Your task to perform on an android device: Go to ESPN.com Image 0: 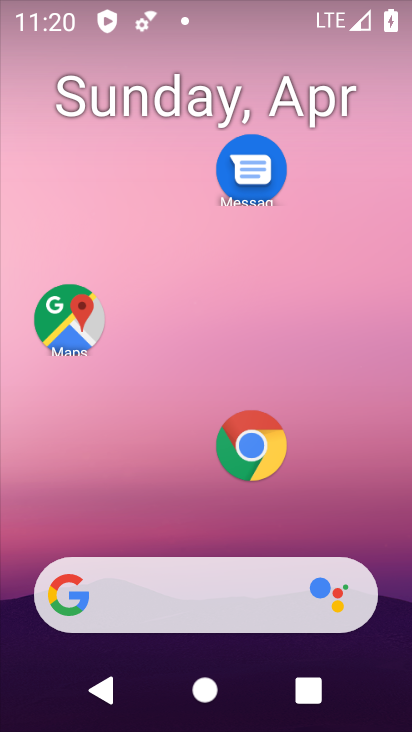
Step 0: press home button
Your task to perform on an android device: Go to ESPN.com Image 1: 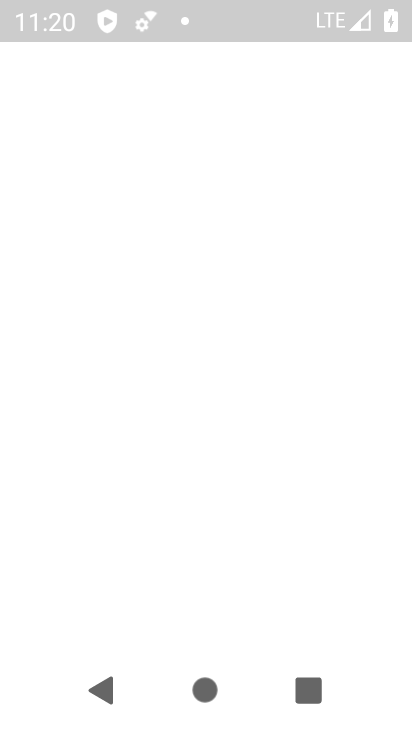
Step 1: drag from (213, 347) to (304, 94)
Your task to perform on an android device: Go to ESPN.com Image 2: 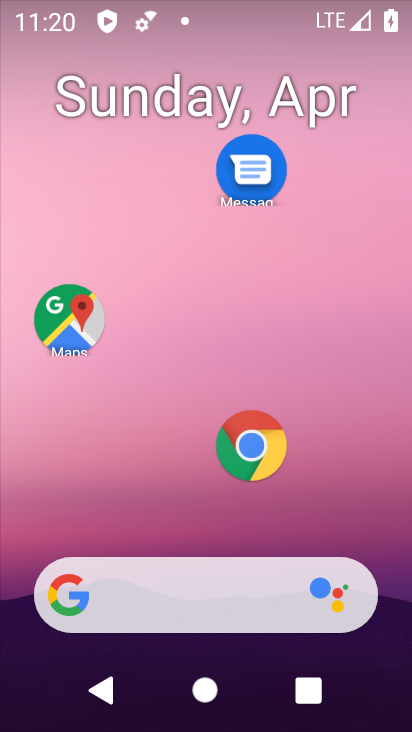
Step 2: press home button
Your task to perform on an android device: Go to ESPN.com Image 3: 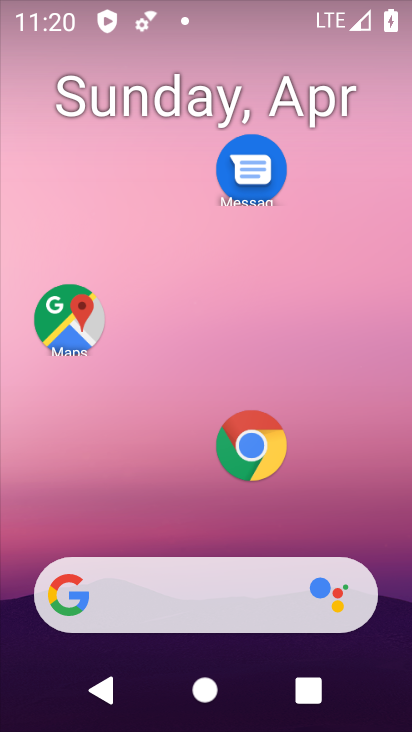
Step 3: drag from (167, 605) to (327, 75)
Your task to perform on an android device: Go to ESPN.com Image 4: 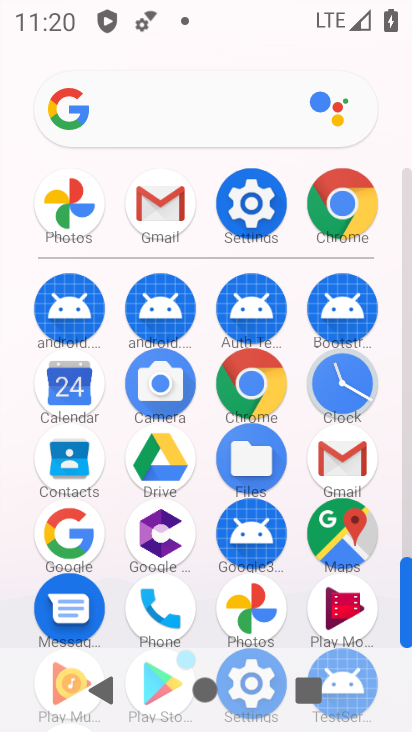
Step 4: click (340, 209)
Your task to perform on an android device: Go to ESPN.com Image 5: 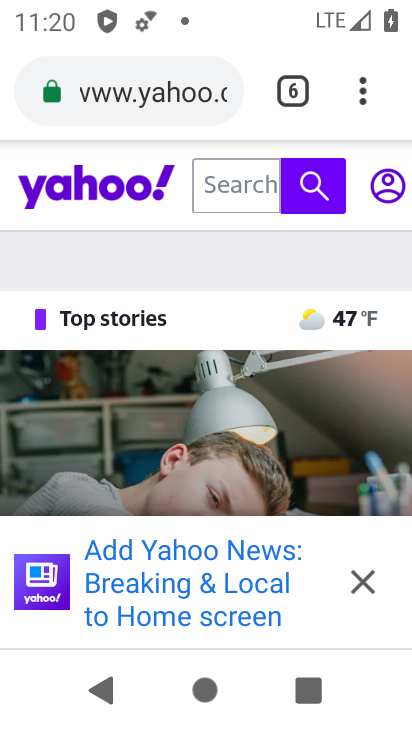
Step 5: drag from (365, 99) to (106, 299)
Your task to perform on an android device: Go to ESPN.com Image 6: 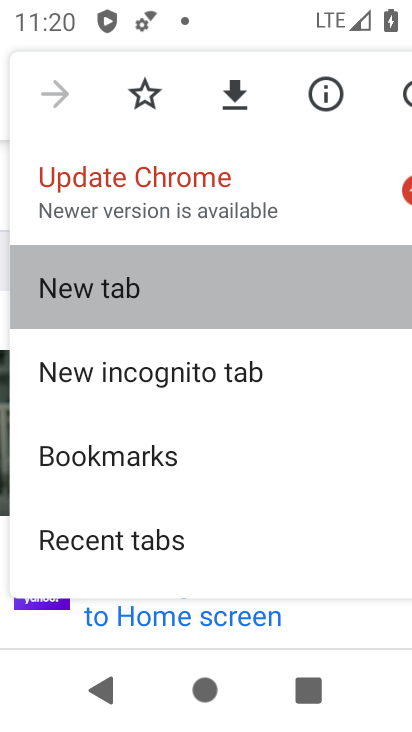
Step 6: click (106, 299)
Your task to perform on an android device: Go to ESPN.com Image 7: 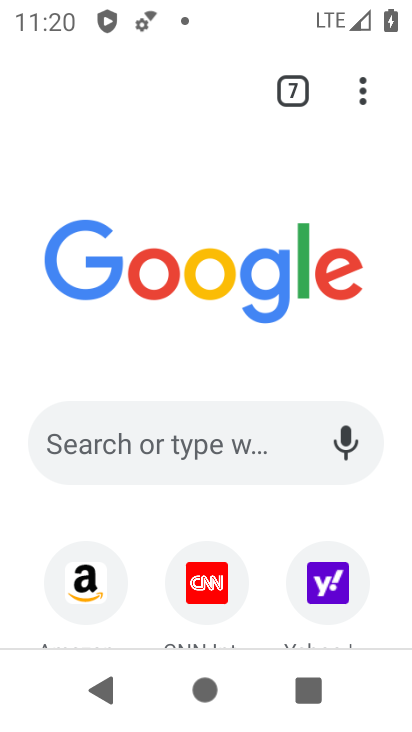
Step 7: drag from (149, 531) to (260, 424)
Your task to perform on an android device: Go to ESPN.com Image 8: 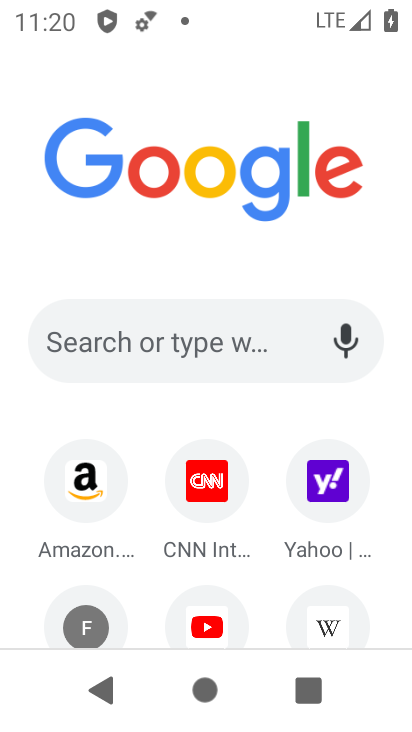
Step 8: drag from (378, 591) to (64, 524)
Your task to perform on an android device: Go to ESPN.com Image 9: 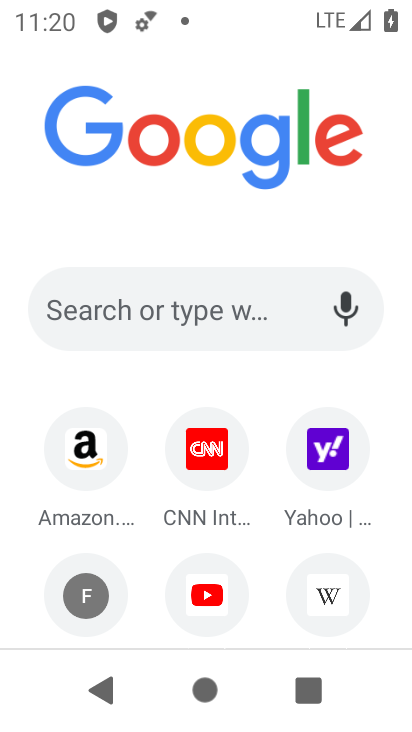
Step 9: click (155, 302)
Your task to perform on an android device: Go to ESPN.com Image 10: 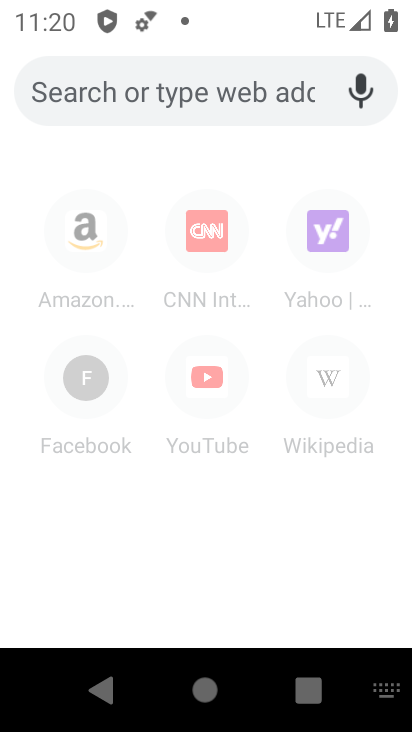
Step 10: type "espn.com"
Your task to perform on an android device: Go to ESPN.com Image 11: 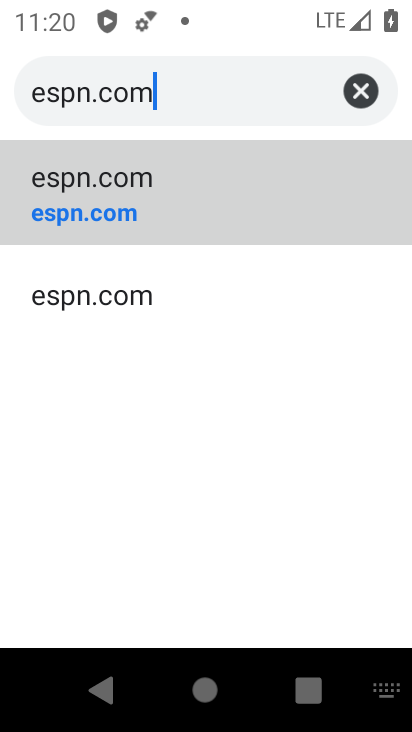
Step 11: click (139, 221)
Your task to perform on an android device: Go to ESPN.com Image 12: 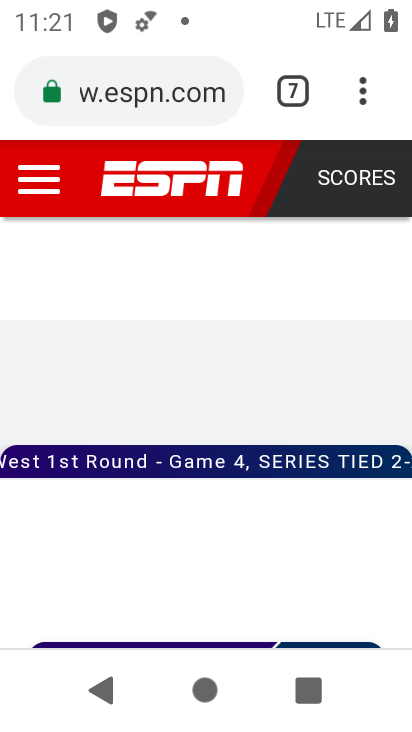
Step 12: task complete